Your task to perform on an android device: check google app version Image 0: 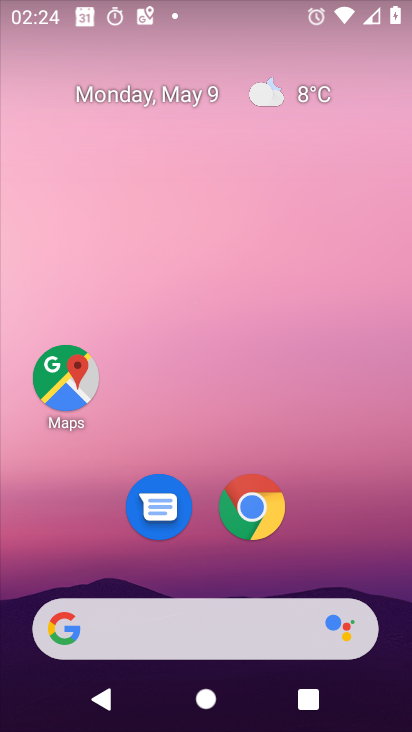
Step 0: drag from (227, 725) to (245, 131)
Your task to perform on an android device: check google app version Image 1: 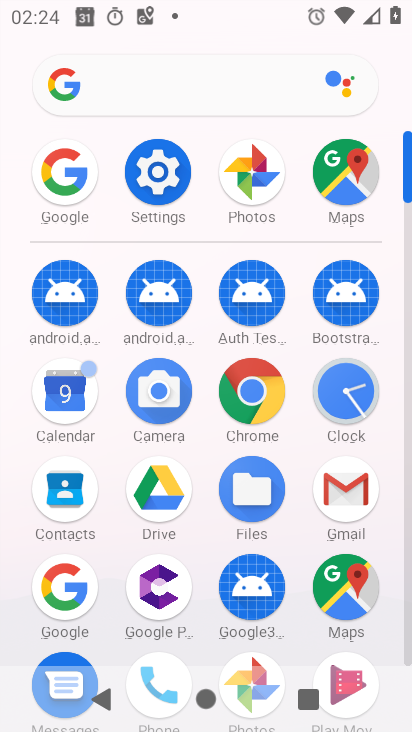
Step 1: click (72, 593)
Your task to perform on an android device: check google app version Image 2: 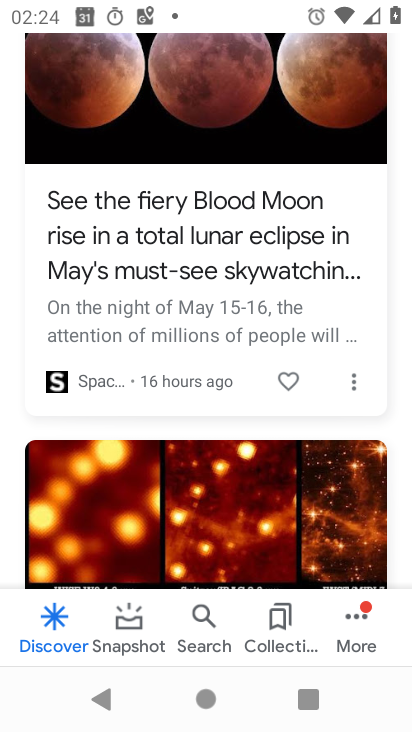
Step 2: drag from (303, 175) to (264, 573)
Your task to perform on an android device: check google app version Image 3: 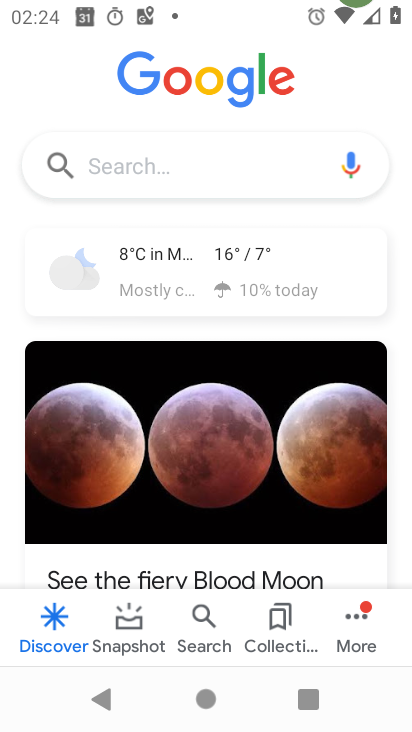
Step 3: click (352, 617)
Your task to perform on an android device: check google app version Image 4: 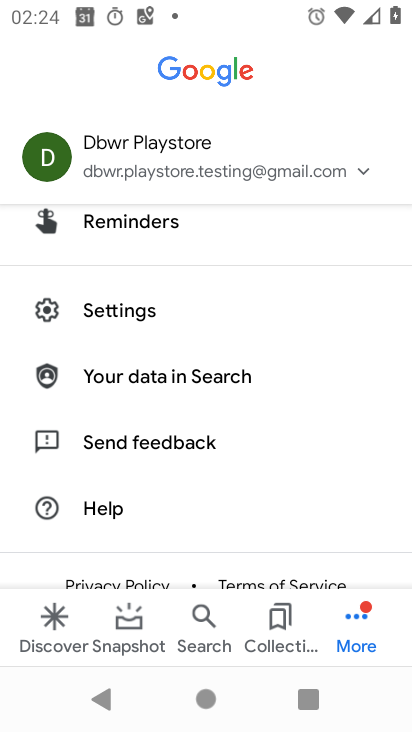
Step 4: drag from (170, 555) to (169, 212)
Your task to perform on an android device: check google app version Image 5: 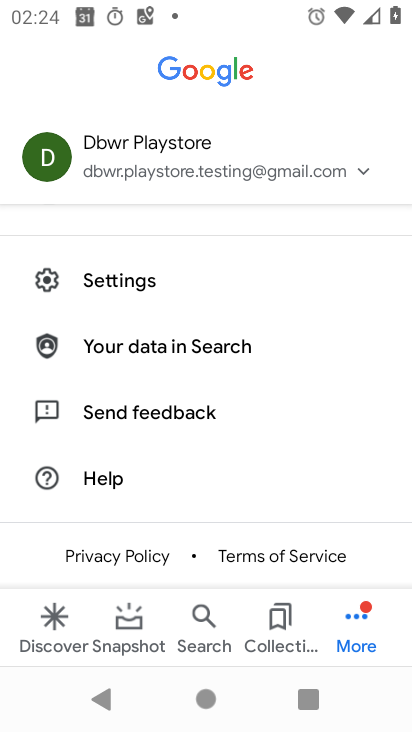
Step 5: click (117, 273)
Your task to perform on an android device: check google app version Image 6: 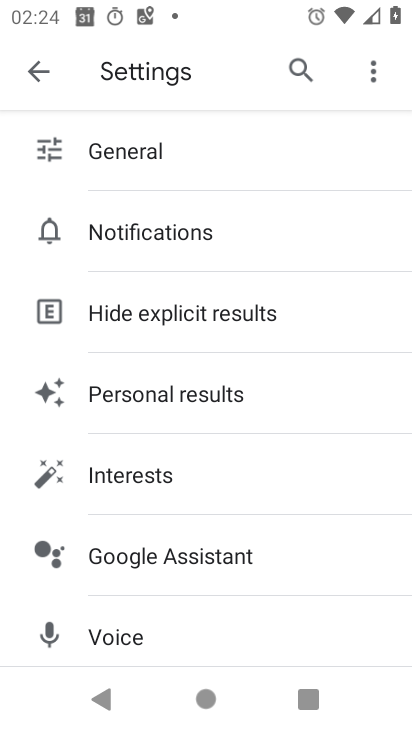
Step 6: drag from (165, 558) to (170, 253)
Your task to perform on an android device: check google app version Image 7: 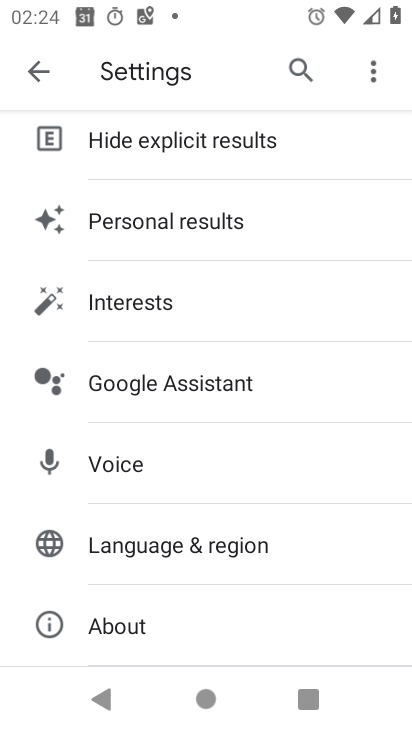
Step 7: click (112, 622)
Your task to perform on an android device: check google app version Image 8: 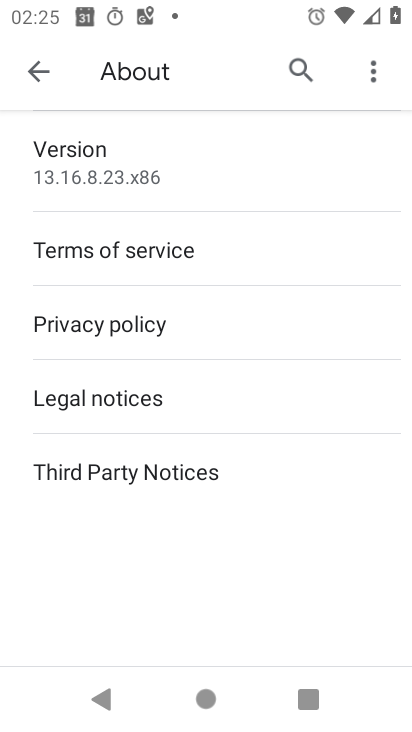
Step 8: task complete